Your task to perform on an android device: check google app version Image 0: 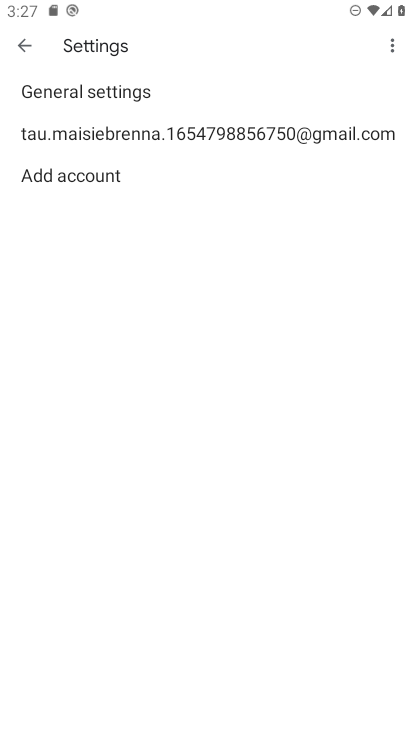
Step 0: press back button
Your task to perform on an android device: check google app version Image 1: 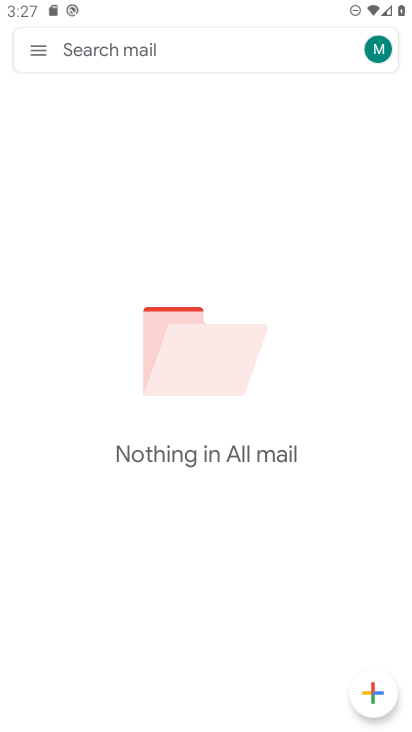
Step 1: press back button
Your task to perform on an android device: check google app version Image 2: 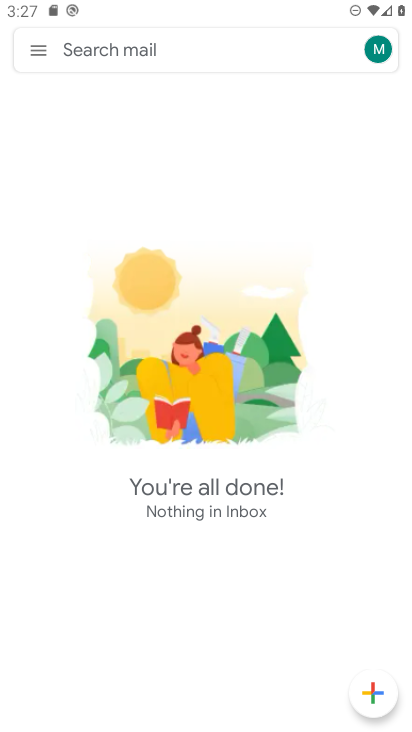
Step 2: press back button
Your task to perform on an android device: check google app version Image 3: 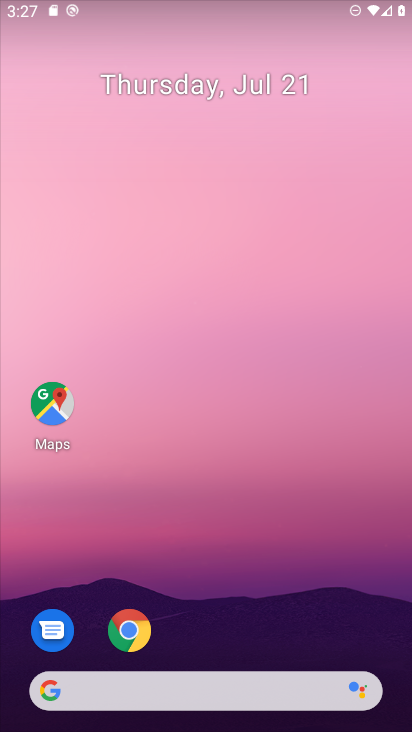
Step 3: drag from (248, 571) to (323, 24)
Your task to perform on an android device: check google app version Image 4: 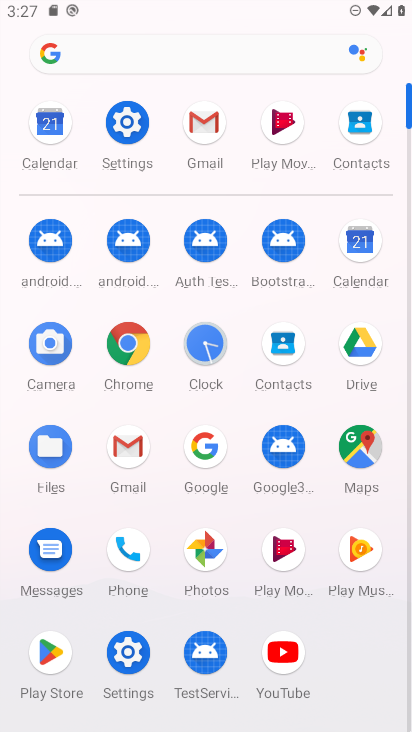
Step 4: click (201, 443)
Your task to perform on an android device: check google app version Image 5: 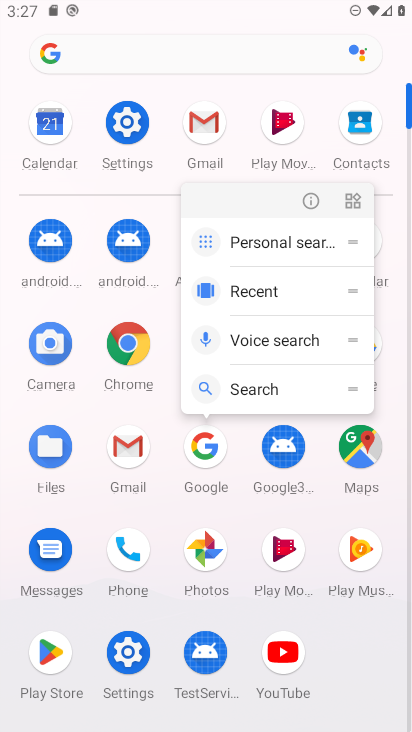
Step 5: click (316, 204)
Your task to perform on an android device: check google app version Image 6: 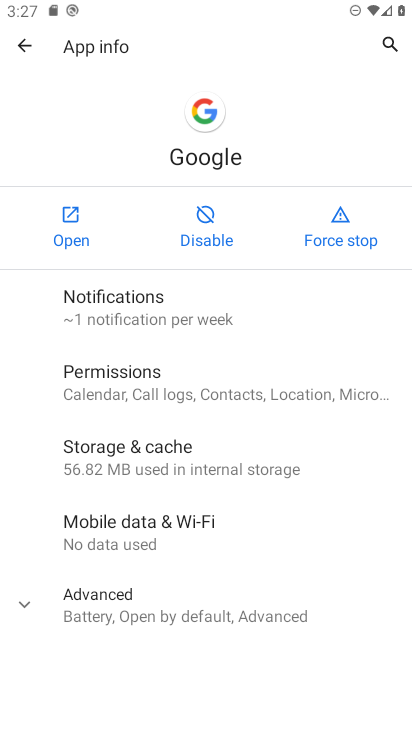
Step 6: click (159, 596)
Your task to perform on an android device: check google app version Image 7: 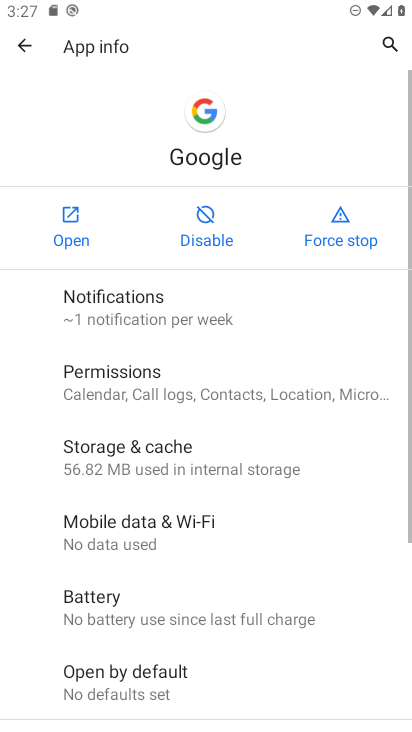
Step 7: task complete